Your task to perform on an android device: allow cookies in the chrome app Image 0: 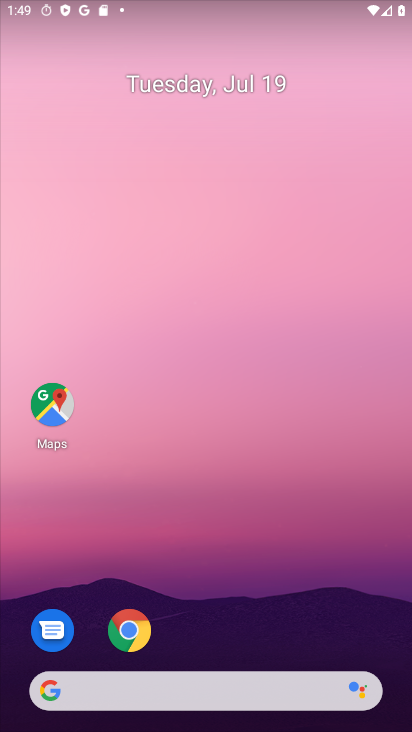
Step 0: click (113, 630)
Your task to perform on an android device: allow cookies in the chrome app Image 1: 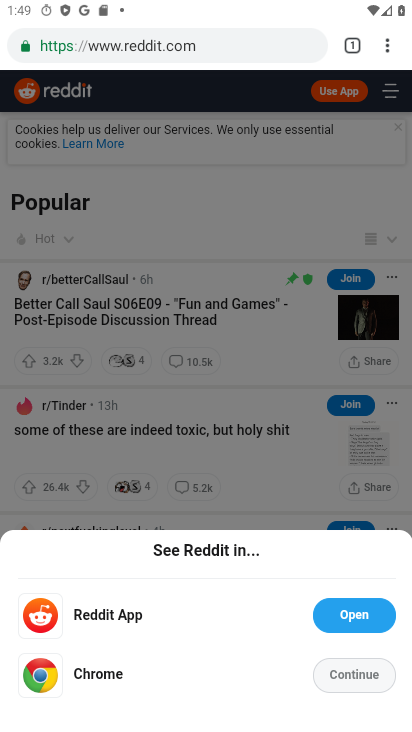
Step 1: click (390, 39)
Your task to perform on an android device: allow cookies in the chrome app Image 2: 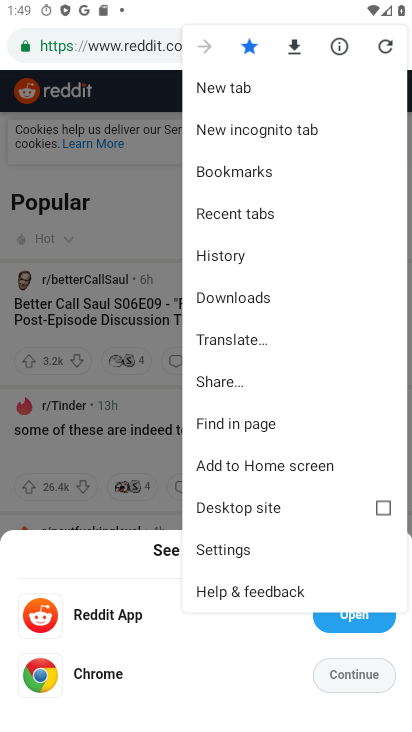
Step 2: click (249, 544)
Your task to perform on an android device: allow cookies in the chrome app Image 3: 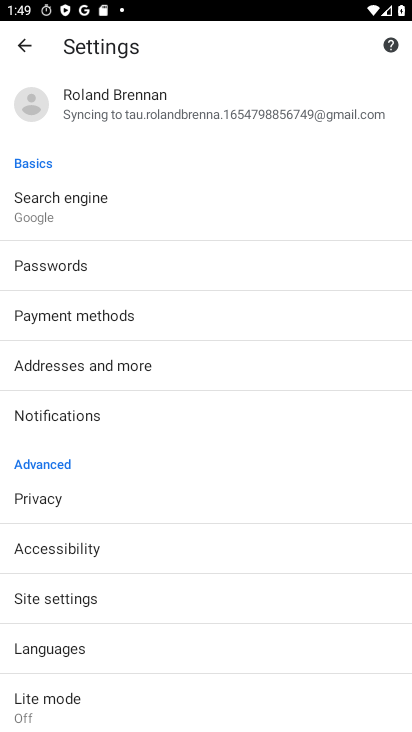
Step 3: click (75, 603)
Your task to perform on an android device: allow cookies in the chrome app Image 4: 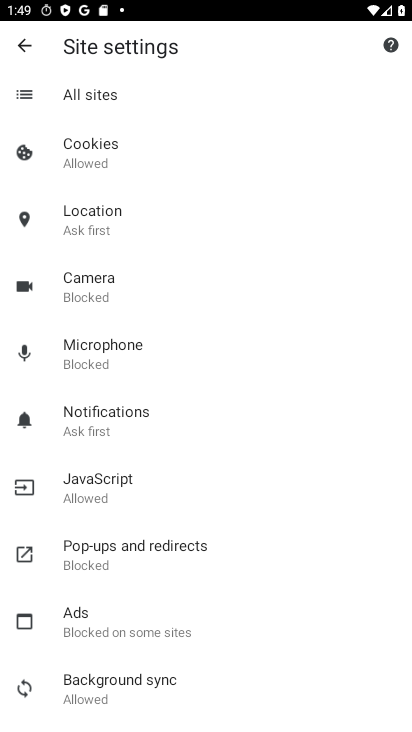
Step 4: click (105, 157)
Your task to perform on an android device: allow cookies in the chrome app Image 5: 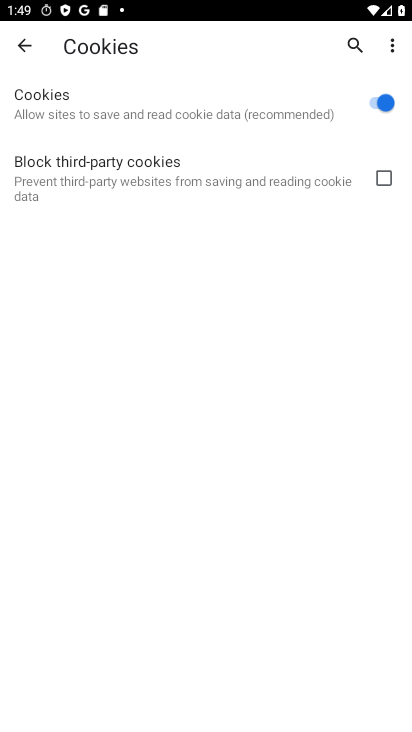
Step 5: task complete